Your task to perform on an android device: turn smart compose on in the gmail app Image 0: 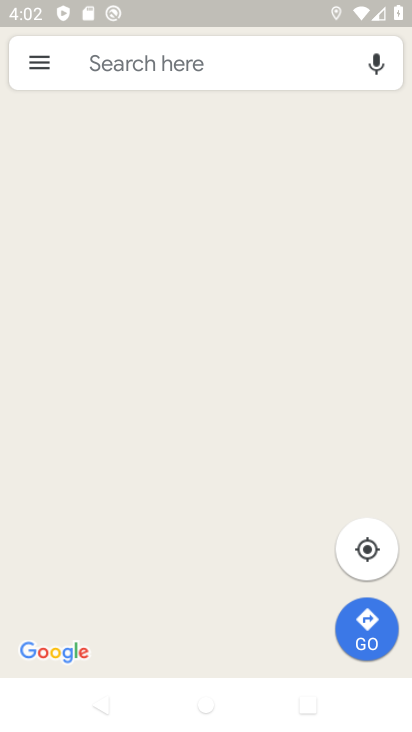
Step 0: press home button
Your task to perform on an android device: turn smart compose on in the gmail app Image 1: 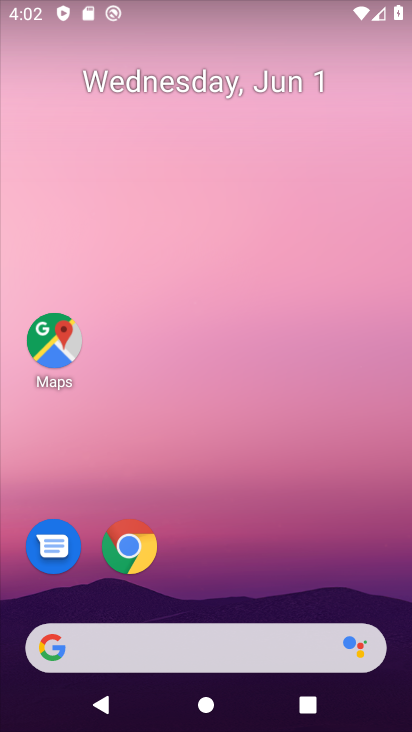
Step 1: drag from (230, 546) to (224, 152)
Your task to perform on an android device: turn smart compose on in the gmail app Image 2: 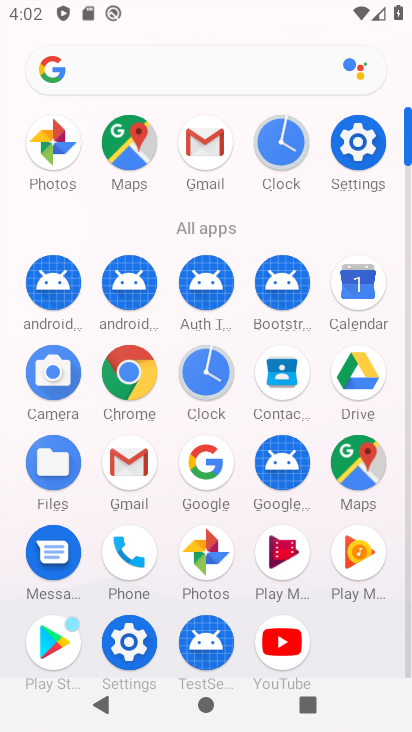
Step 2: click (204, 145)
Your task to perform on an android device: turn smart compose on in the gmail app Image 3: 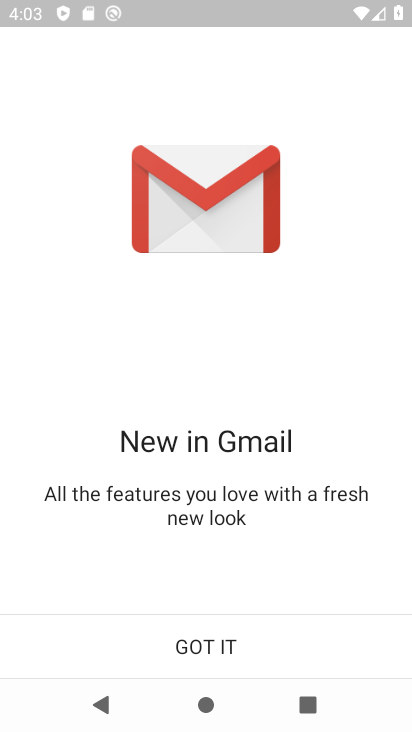
Step 3: click (184, 644)
Your task to perform on an android device: turn smart compose on in the gmail app Image 4: 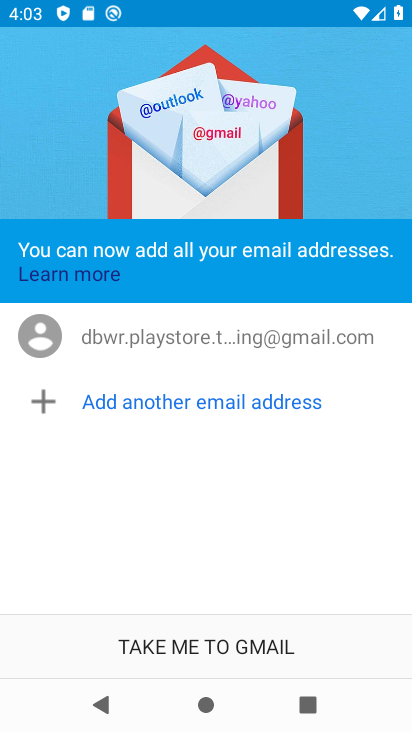
Step 4: click (241, 640)
Your task to perform on an android device: turn smart compose on in the gmail app Image 5: 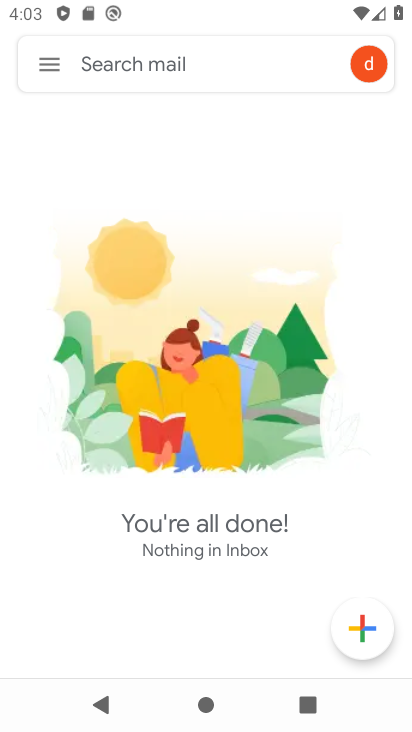
Step 5: click (48, 58)
Your task to perform on an android device: turn smart compose on in the gmail app Image 6: 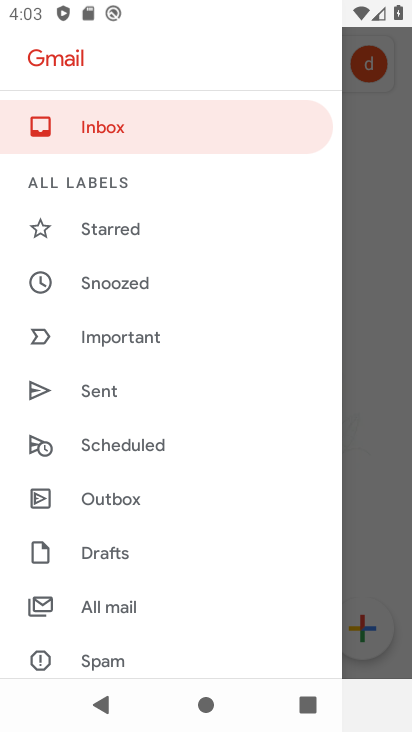
Step 6: drag from (196, 627) to (191, 321)
Your task to perform on an android device: turn smart compose on in the gmail app Image 7: 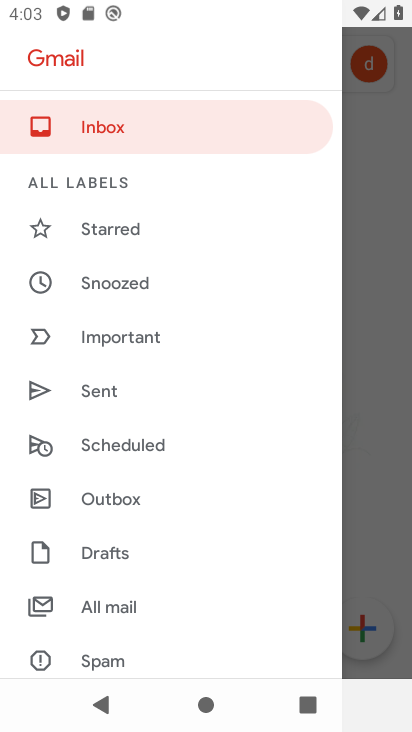
Step 7: drag from (191, 550) to (206, 208)
Your task to perform on an android device: turn smart compose on in the gmail app Image 8: 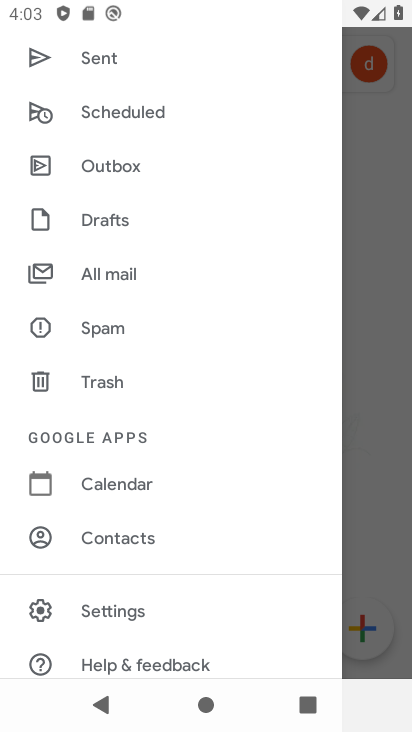
Step 8: click (105, 608)
Your task to perform on an android device: turn smart compose on in the gmail app Image 9: 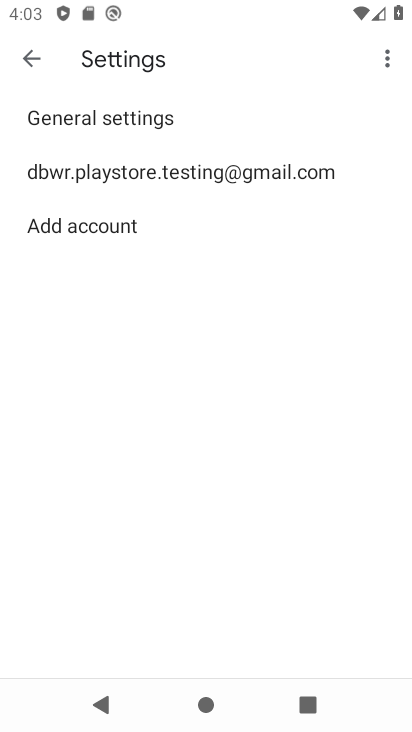
Step 9: click (128, 176)
Your task to perform on an android device: turn smart compose on in the gmail app Image 10: 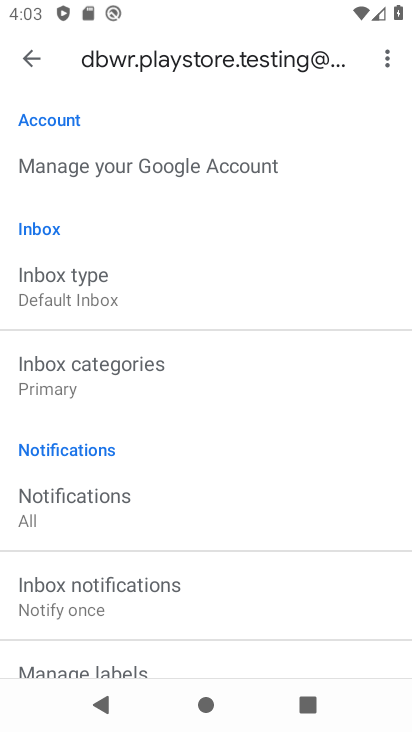
Step 10: task complete